Your task to perform on an android device: set default search engine in the chrome app Image 0: 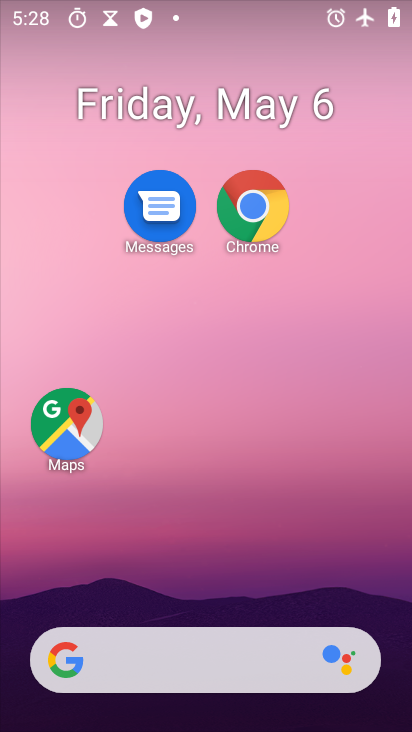
Step 0: click (242, 206)
Your task to perform on an android device: set default search engine in the chrome app Image 1: 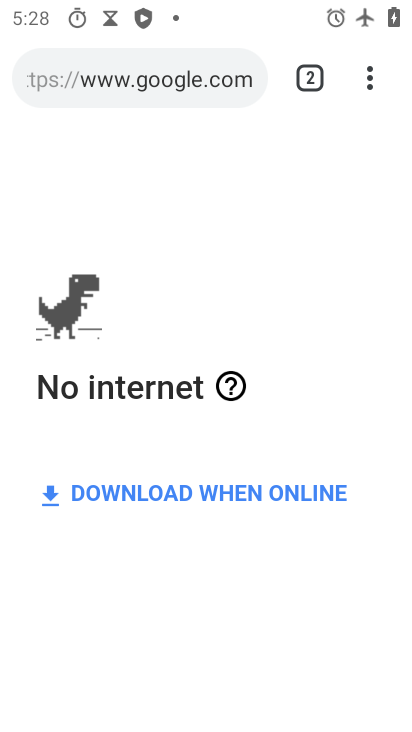
Step 1: click (364, 78)
Your task to perform on an android device: set default search engine in the chrome app Image 2: 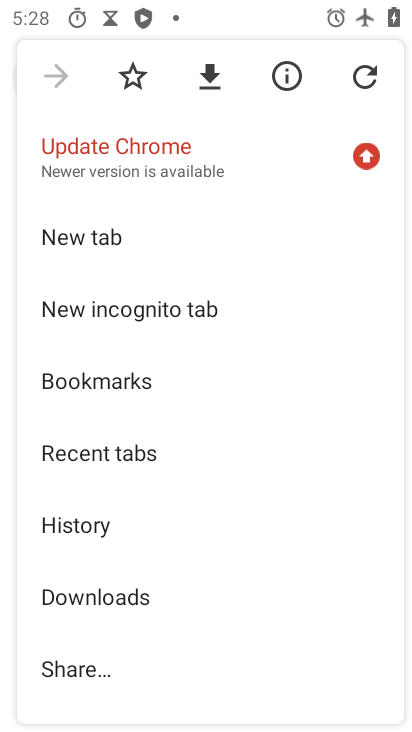
Step 2: drag from (98, 682) to (96, 279)
Your task to perform on an android device: set default search engine in the chrome app Image 3: 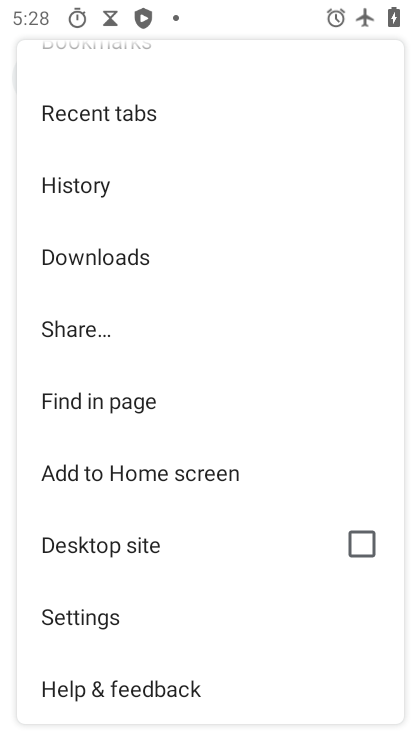
Step 3: click (99, 612)
Your task to perform on an android device: set default search engine in the chrome app Image 4: 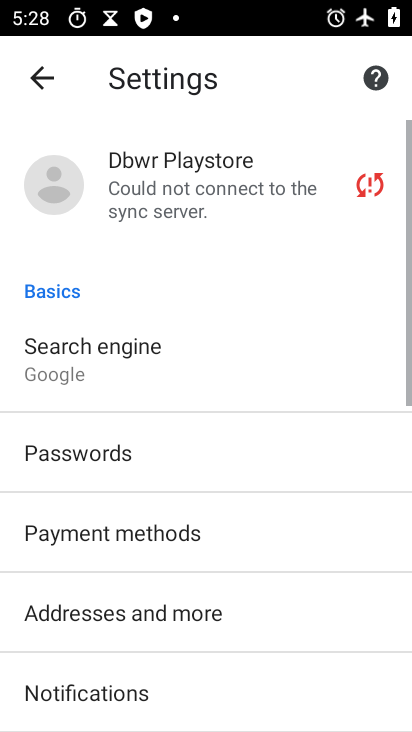
Step 4: click (119, 359)
Your task to perform on an android device: set default search engine in the chrome app Image 5: 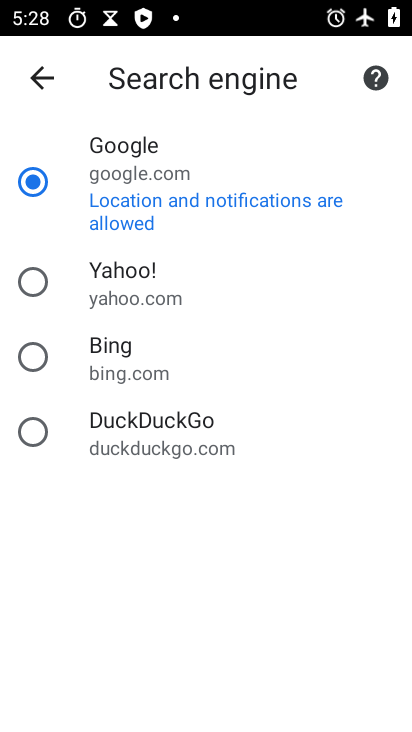
Step 5: task complete